Your task to perform on an android device: turn on improve location accuracy Image 0: 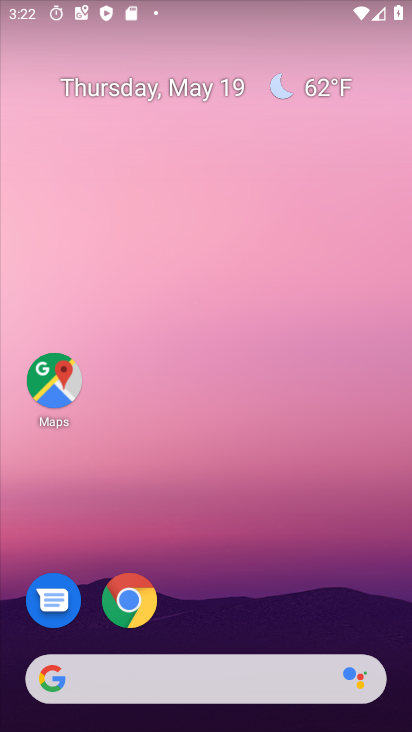
Step 0: press home button
Your task to perform on an android device: turn on improve location accuracy Image 1: 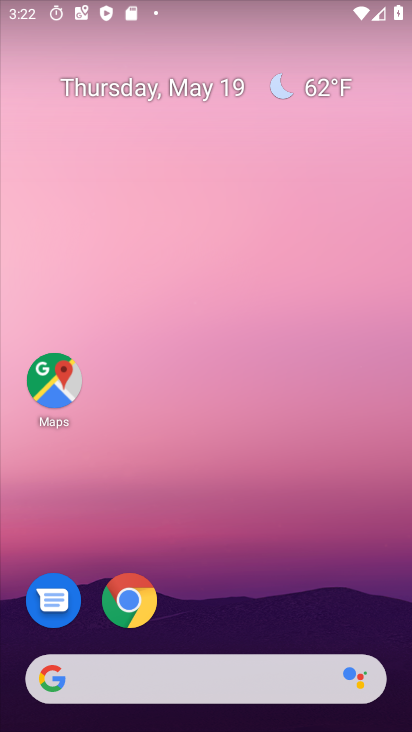
Step 1: drag from (35, 541) to (292, 130)
Your task to perform on an android device: turn on improve location accuracy Image 2: 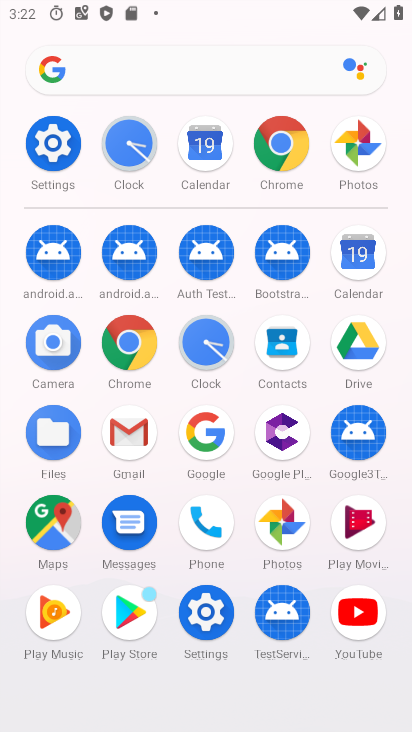
Step 2: click (69, 141)
Your task to perform on an android device: turn on improve location accuracy Image 3: 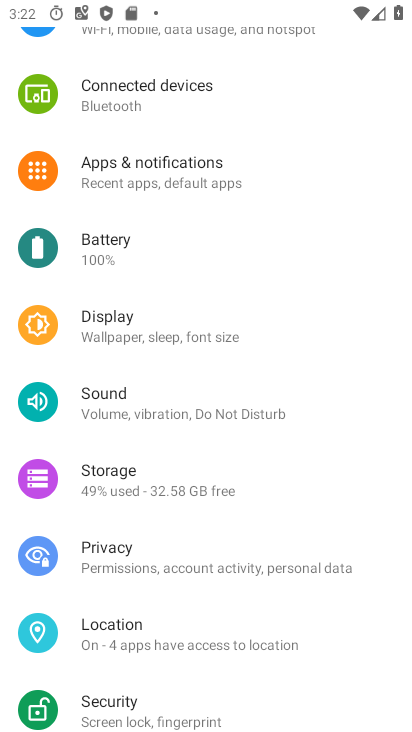
Step 3: click (146, 628)
Your task to perform on an android device: turn on improve location accuracy Image 4: 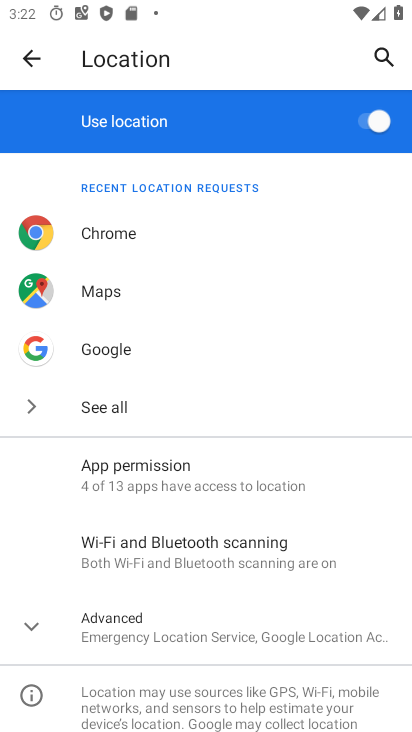
Step 4: click (143, 630)
Your task to perform on an android device: turn on improve location accuracy Image 5: 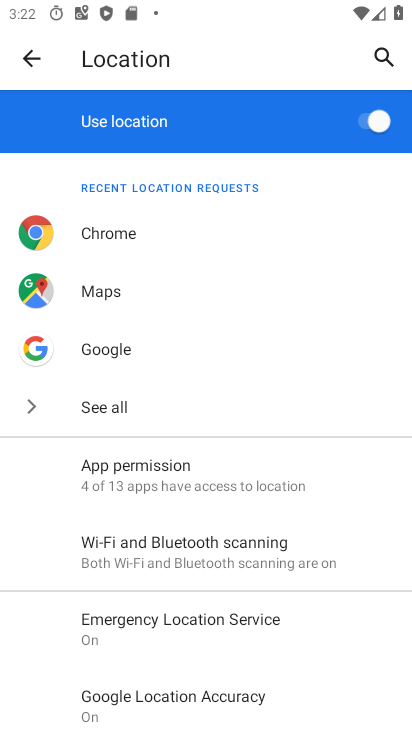
Step 5: click (127, 697)
Your task to perform on an android device: turn on improve location accuracy Image 6: 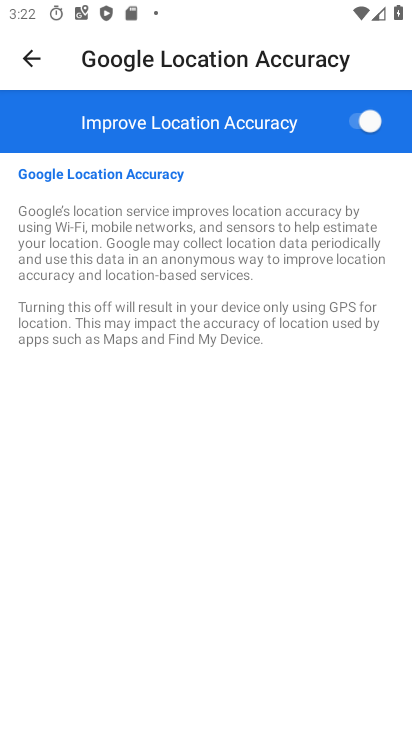
Step 6: task complete